Your task to perform on an android device: Open location settings Image 0: 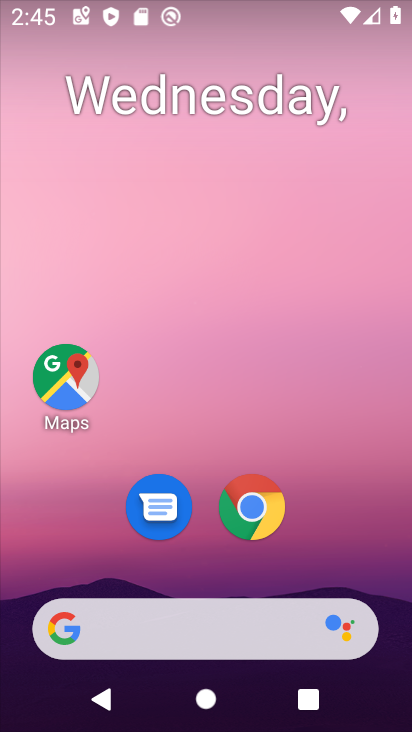
Step 0: drag from (335, 550) to (327, 277)
Your task to perform on an android device: Open location settings Image 1: 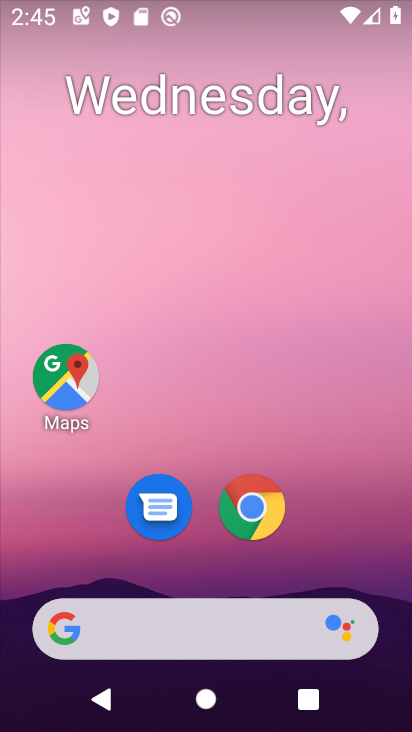
Step 1: drag from (382, 500) to (351, 107)
Your task to perform on an android device: Open location settings Image 2: 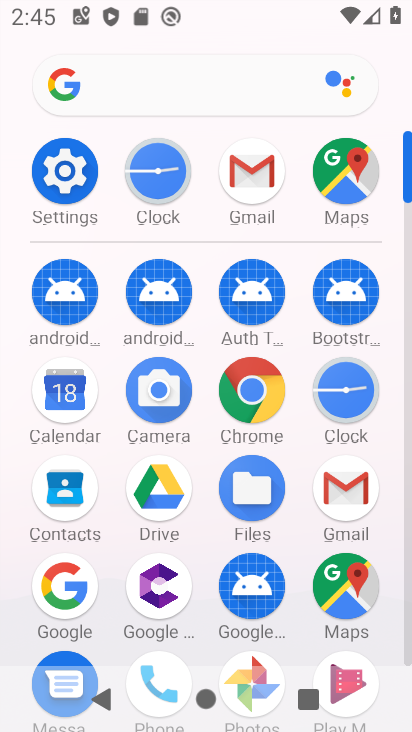
Step 2: click (64, 181)
Your task to perform on an android device: Open location settings Image 3: 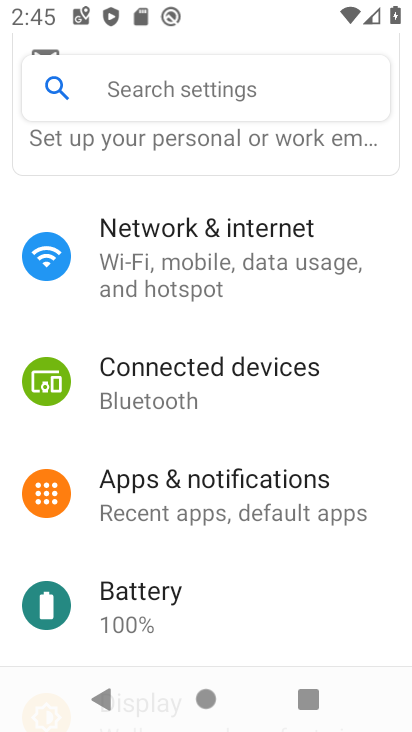
Step 3: drag from (250, 579) to (291, 186)
Your task to perform on an android device: Open location settings Image 4: 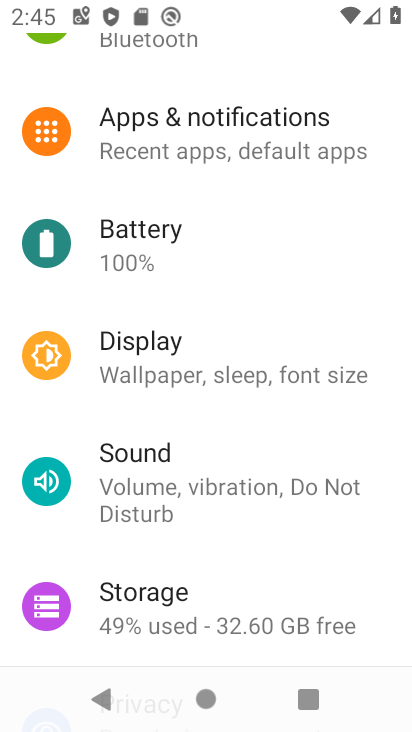
Step 4: drag from (248, 531) to (294, 250)
Your task to perform on an android device: Open location settings Image 5: 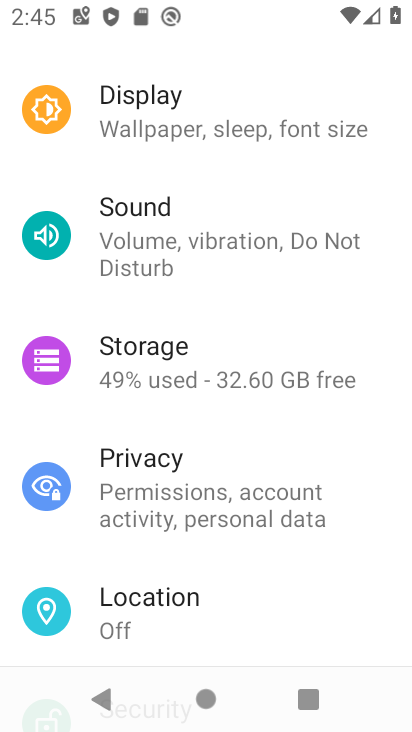
Step 5: click (223, 592)
Your task to perform on an android device: Open location settings Image 6: 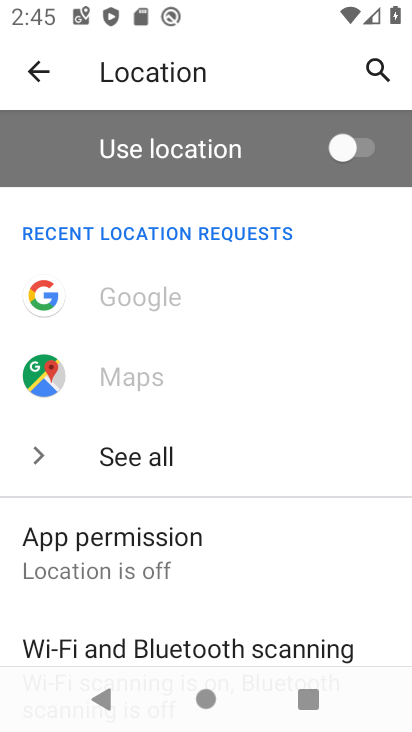
Step 6: task complete